Your task to perform on an android device: toggle show notifications on the lock screen Image 0: 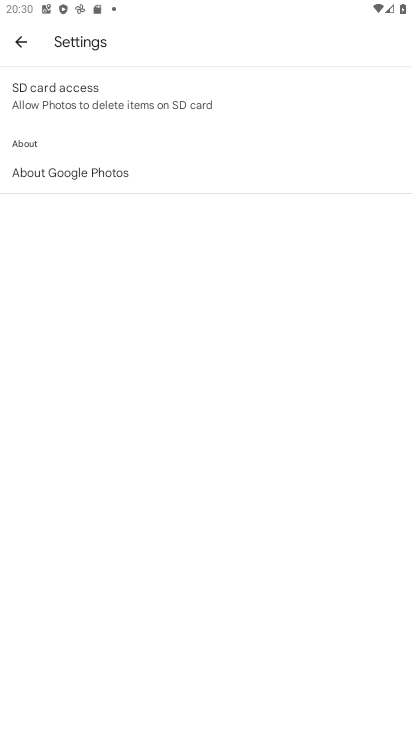
Step 0: press home button
Your task to perform on an android device: toggle show notifications on the lock screen Image 1: 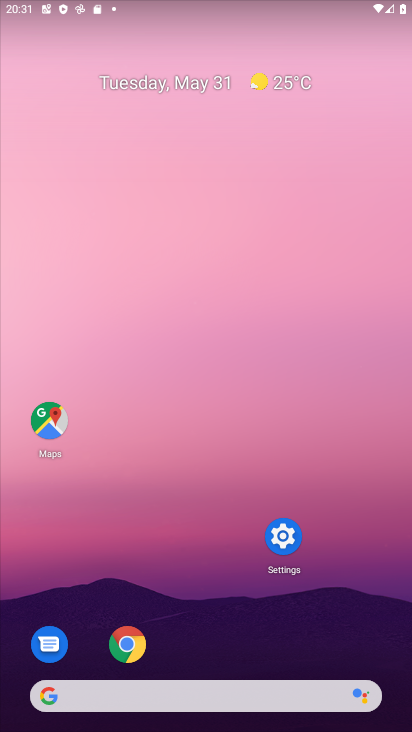
Step 1: drag from (213, 713) to (204, 0)
Your task to perform on an android device: toggle show notifications on the lock screen Image 2: 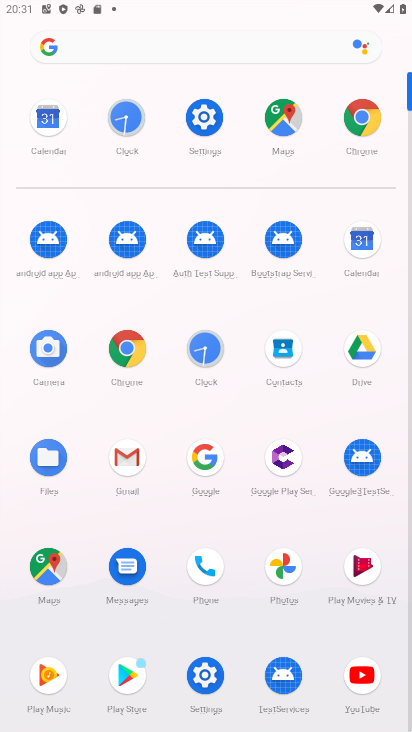
Step 2: click (205, 130)
Your task to perform on an android device: toggle show notifications on the lock screen Image 3: 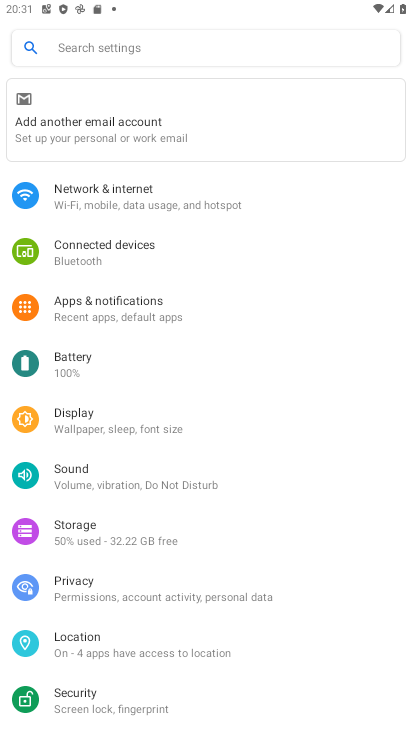
Step 3: click (135, 51)
Your task to perform on an android device: toggle show notifications on the lock screen Image 4: 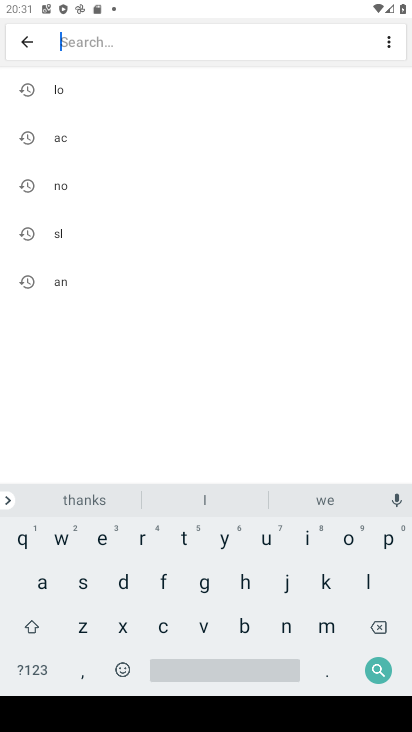
Step 4: click (65, 179)
Your task to perform on an android device: toggle show notifications on the lock screen Image 5: 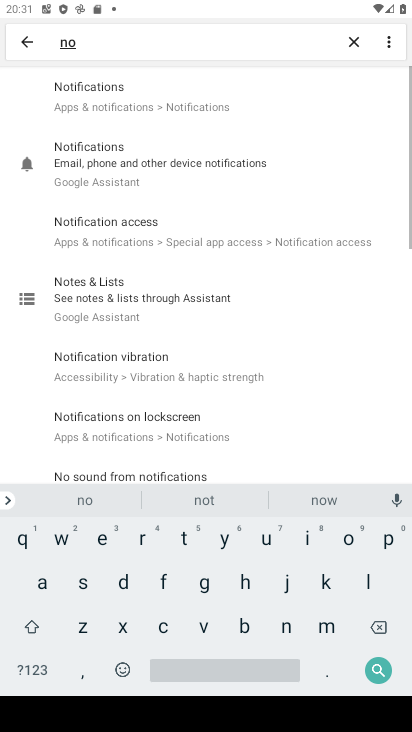
Step 5: click (104, 103)
Your task to perform on an android device: toggle show notifications on the lock screen Image 6: 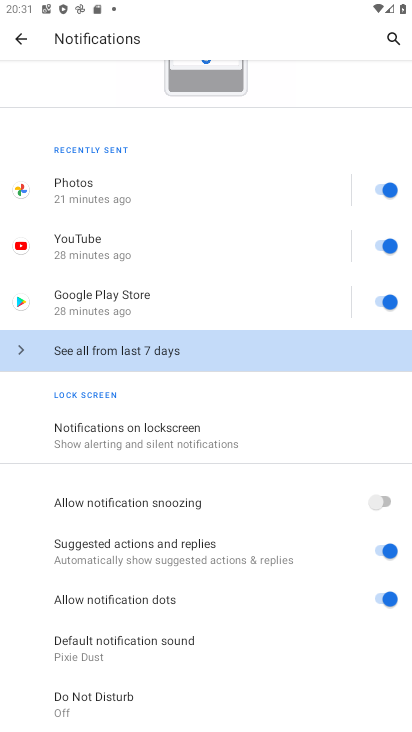
Step 6: click (122, 432)
Your task to perform on an android device: toggle show notifications on the lock screen Image 7: 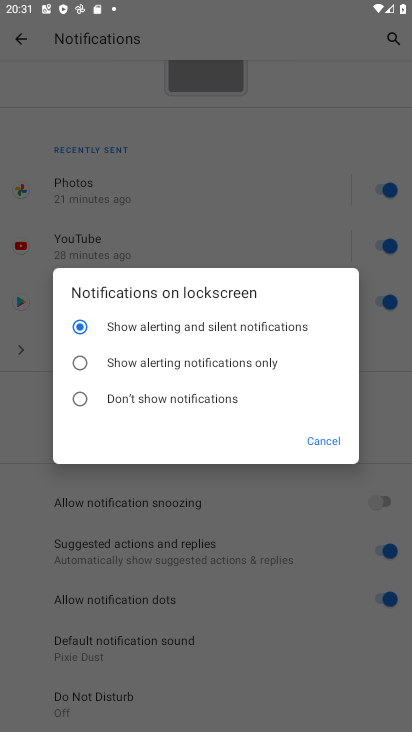
Step 7: task complete